Your task to perform on an android device: turn on translation in the chrome app Image 0: 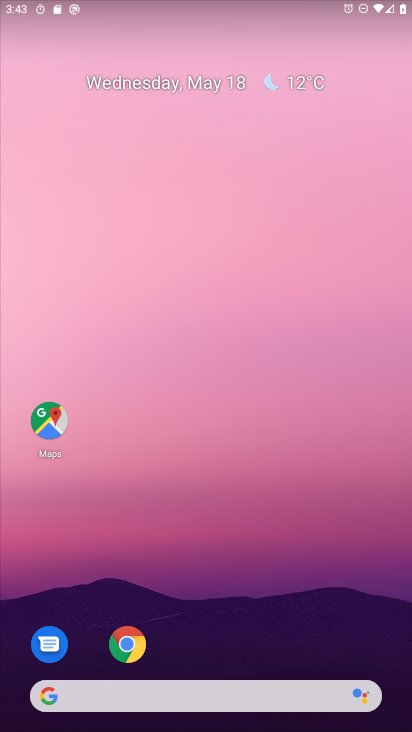
Step 0: click (130, 643)
Your task to perform on an android device: turn on translation in the chrome app Image 1: 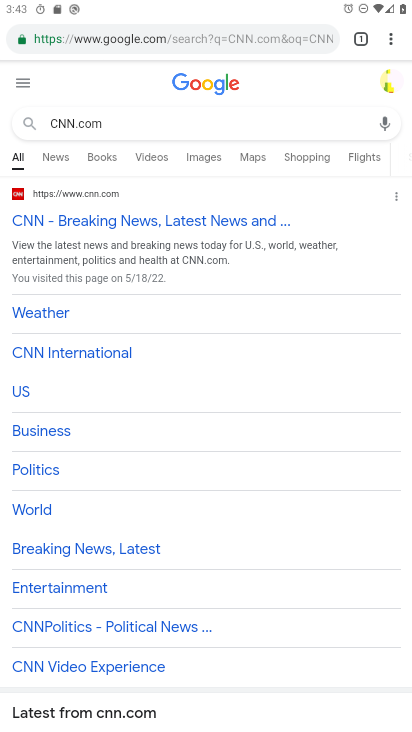
Step 1: click (392, 37)
Your task to perform on an android device: turn on translation in the chrome app Image 2: 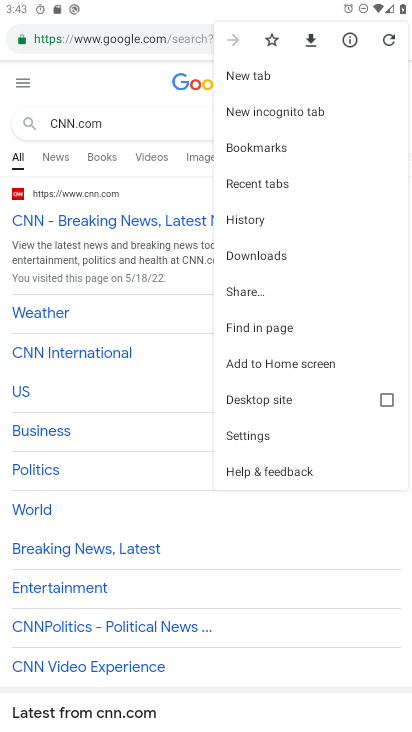
Step 2: click (251, 435)
Your task to perform on an android device: turn on translation in the chrome app Image 3: 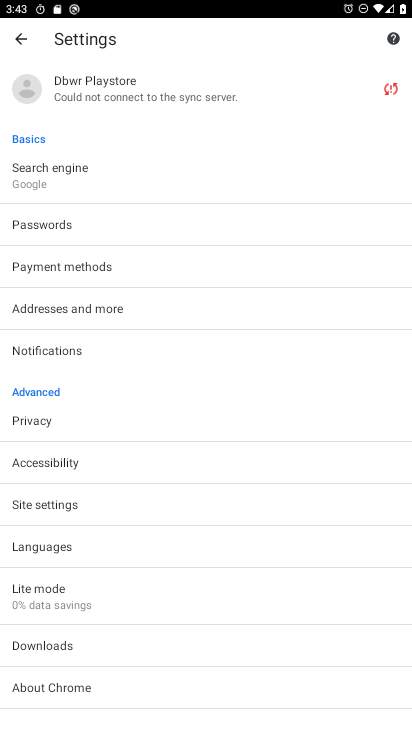
Step 3: click (49, 507)
Your task to perform on an android device: turn on translation in the chrome app Image 4: 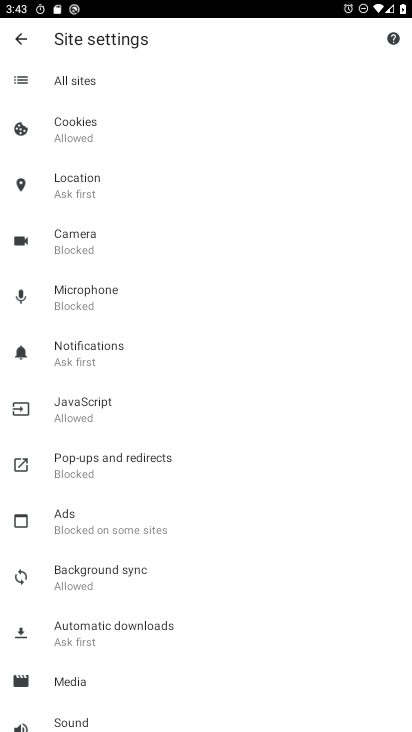
Step 4: press back button
Your task to perform on an android device: turn on translation in the chrome app Image 5: 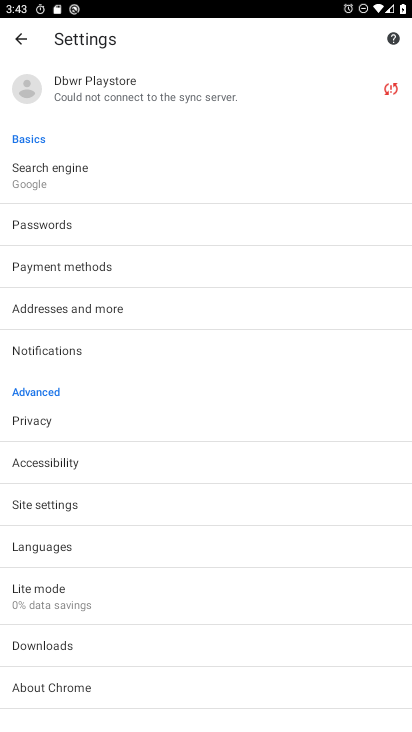
Step 5: click (43, 540)
Your task to perform on an android device: turn on translation in the chrome app Image 6: 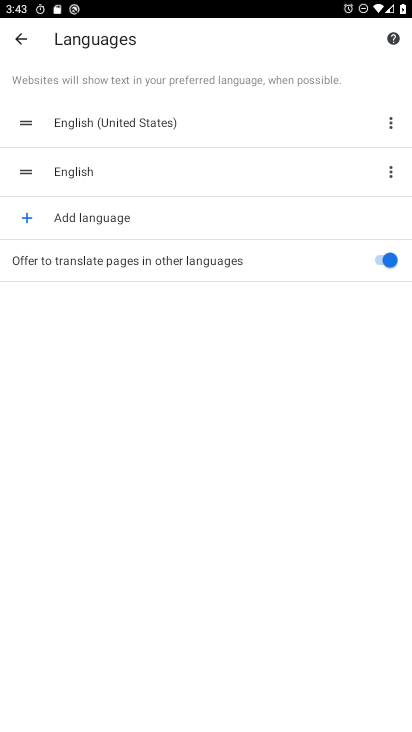
Step 6: task complete